Your task to perform on an android device: turn off sleep mode Image 0: 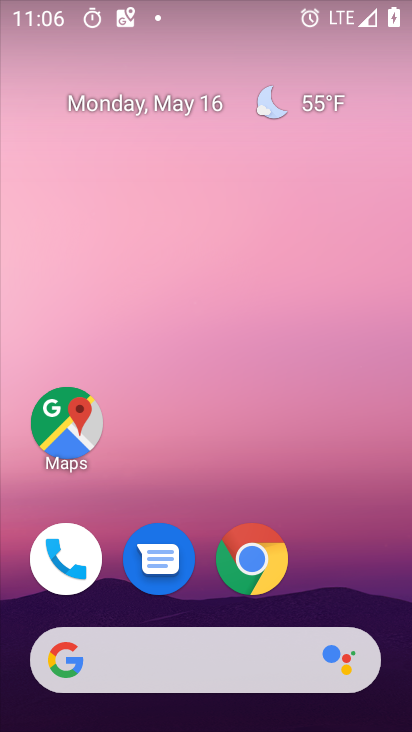
Step 0: drag from (359, 543) to (345, 117)
Your task to perform on an android device: turn off sleep mode Image 1: 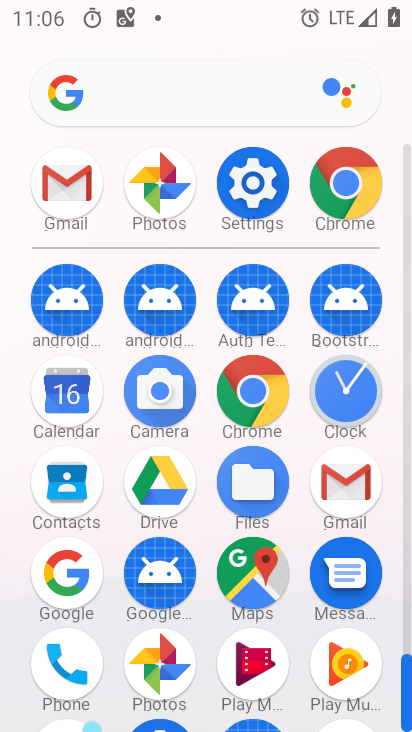
Step 1: click (263, 186)
Your task to perform on an android device: turn off sleep mode Image 2: 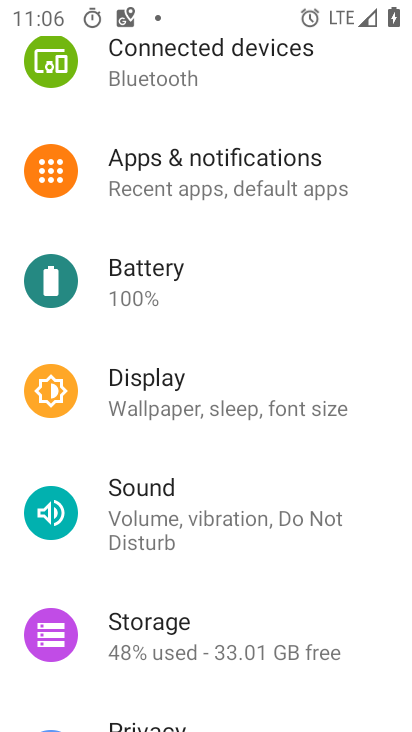
Step 2: drag from (246, 293) to (325, 136)
Your task to perform on an android device: turn off sleep mode Image 3: 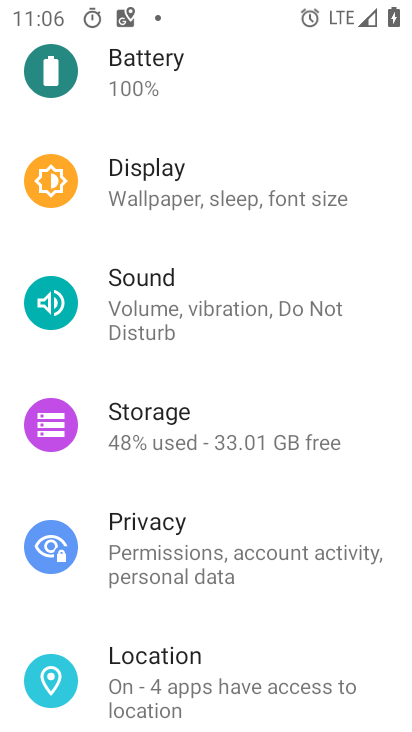
Step 3: click (179, 206)
Your task to perform on an android device: turn off sleep mode Image 4: 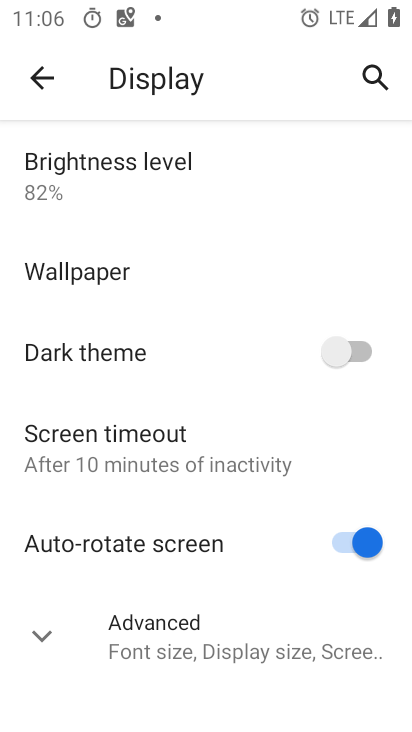
Step 4: click (187, 639)
Your task to perform on an android device: turn off sleep mode Image 5: 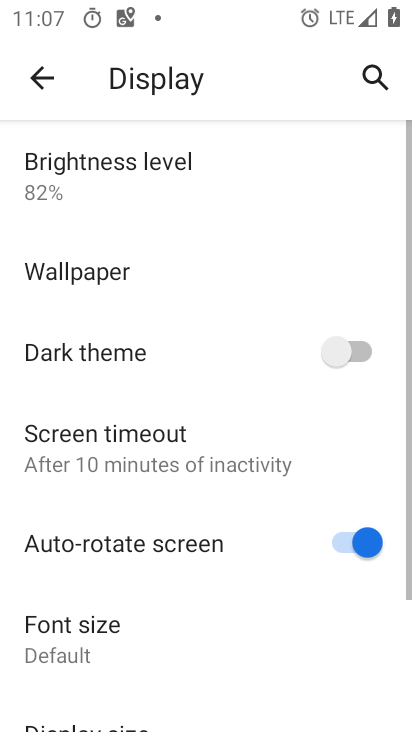
Step 5: click (143, 431)
Your task to perform on an android device: turn off sleep mode Image 6: 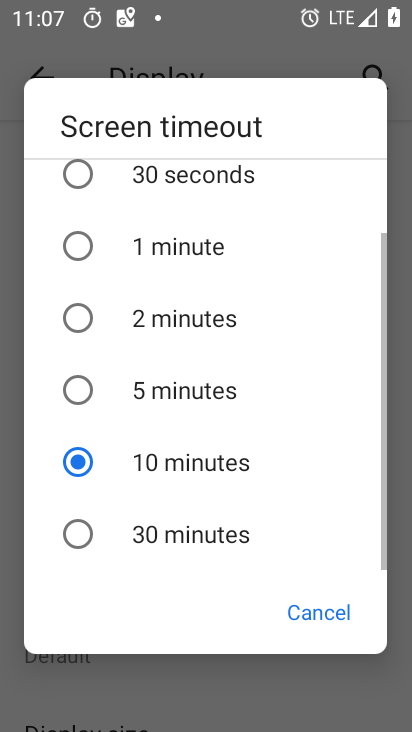
Step 6: task complete